Your task to perform on an android device: find which apps use the phone's location Image 0: 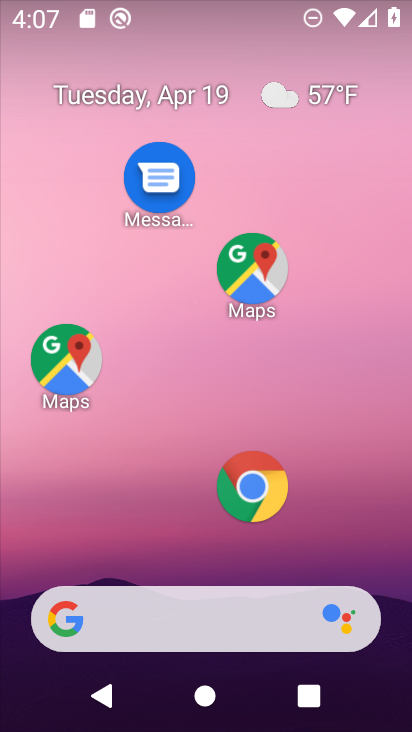
Step 0: drag from (239, 559) to (281, 135)
Your task to perform on an android device: find which apps use the phone's location Image 1: 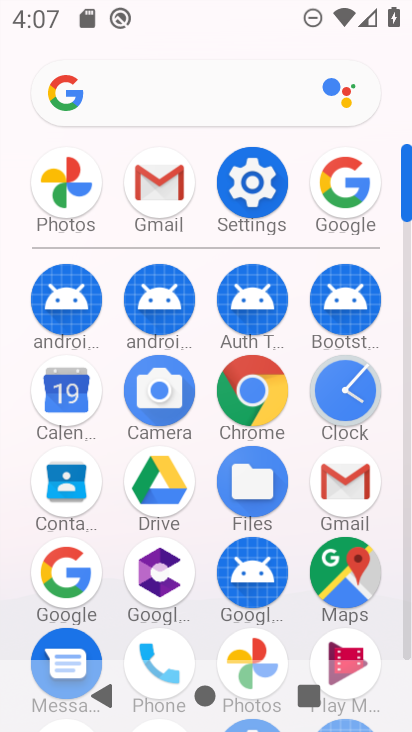
Step 1: click (259, 178)
Your task to perform on an android device: find which apps use the phone's location Image 2: 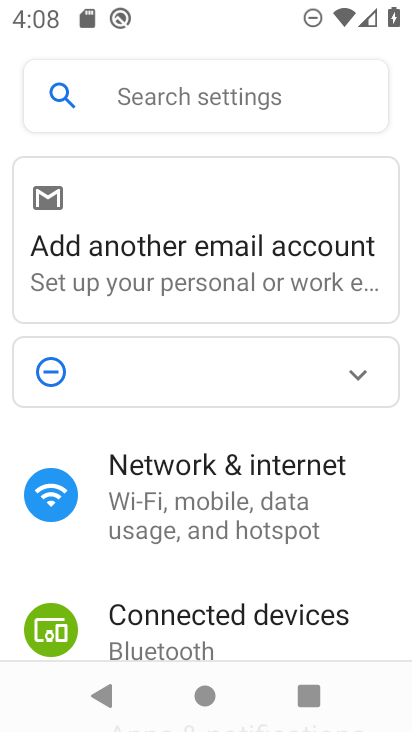
Step 2: drag from (235, 580) to (237, 267)
Your task to perform on an android device: find which apps use the phone's location Image 3: 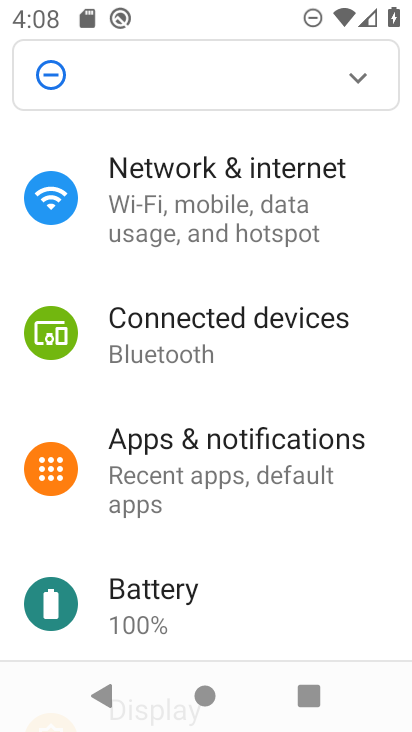
Step 3: drag from (227, 522) to (251, 166)
Your task to perform on an android device: find which apps use the phone's location Image 4: 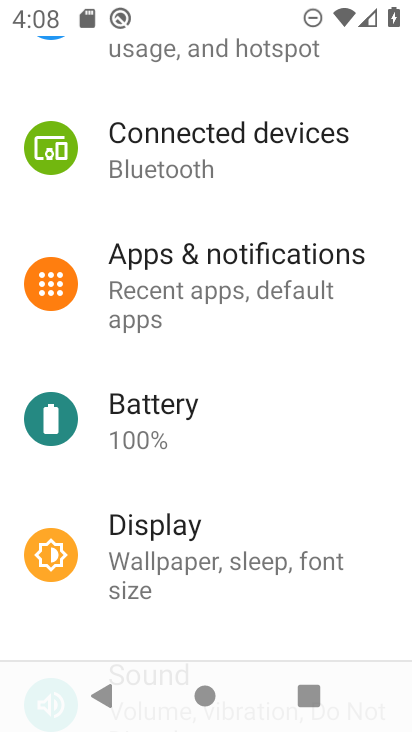
Step 4: drag from (235, 498) to (252, 191)
Your task to perform on an android device: find which apps use the phone's location Image 5: 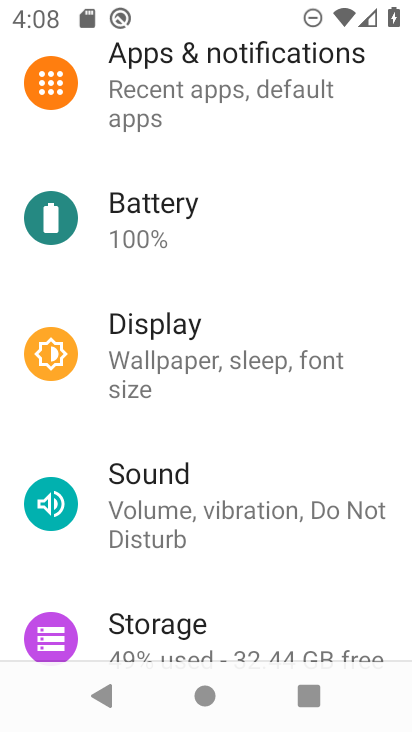
Step 5: drag from (236, 521) to (258, 214)
Your task to perform on an android device: find which apps use the phone's location Image 6: 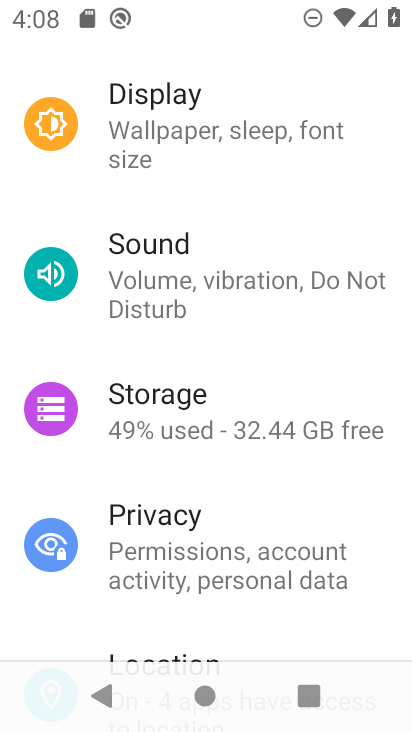
Step 6: drag from (226, 537) to (237, 235)
Your task to perform on an android device: find which apps use the phone's location Image 7: 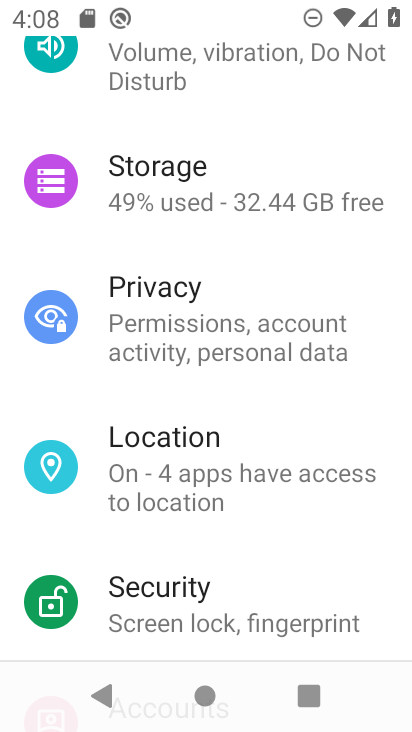
Step 7: click (234, 474)
Your task to perform on an android device: find which apps use the phone's location Image 8: 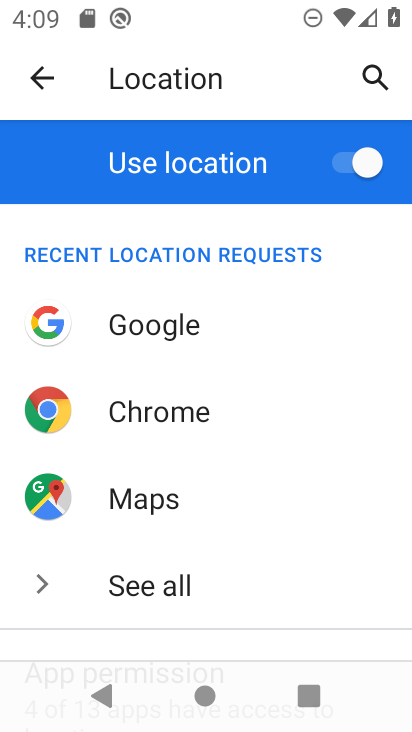
Step 8: task complete